Your task to perform on an android device: turn off location Image 0: 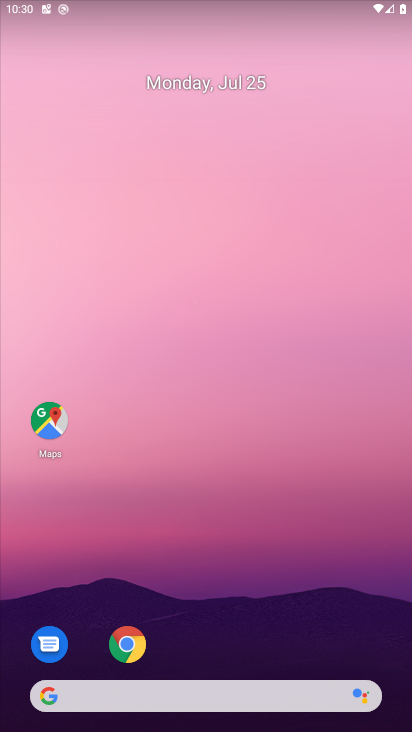
Step 0: drag from (259, 455) to (281, 170)
Your task to perform on an android device: turn off location Image 1: 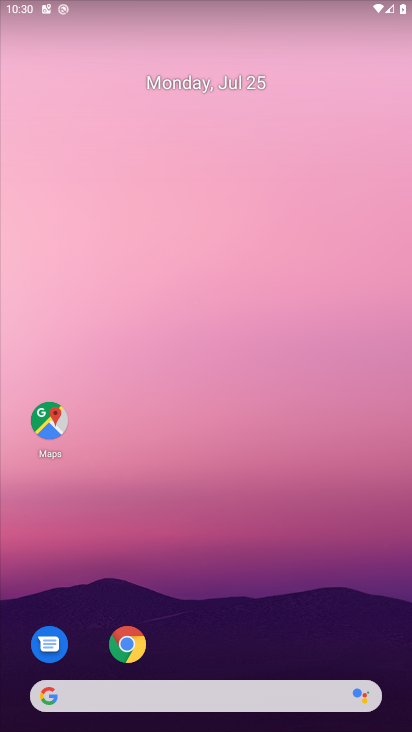
Step 1: drag from (295, 514) to (328, 1)
Your task to perform on an android device: turn off location Image 2: 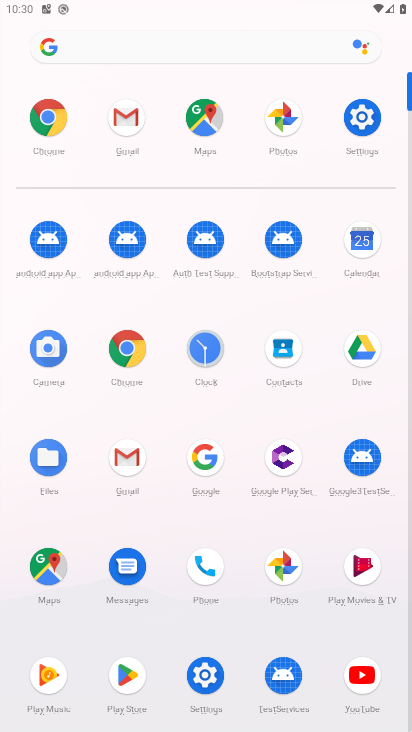
Step 2: click (358, 97)
Your task to perform on an android device: turn off location Image 3: 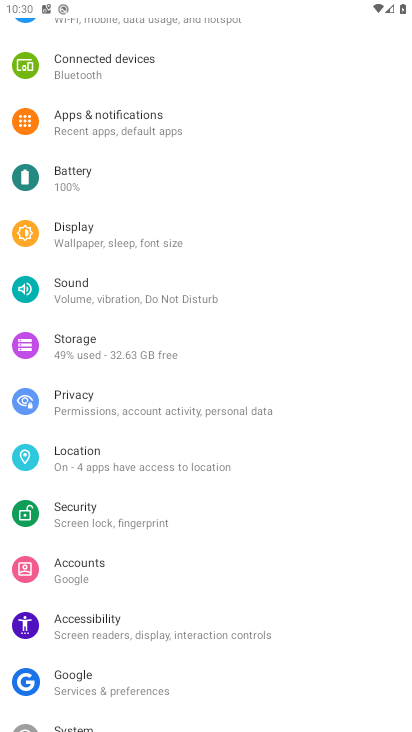
Step 3: click (167, 452)
Your task to perform on an android device: turn off location Image 4: 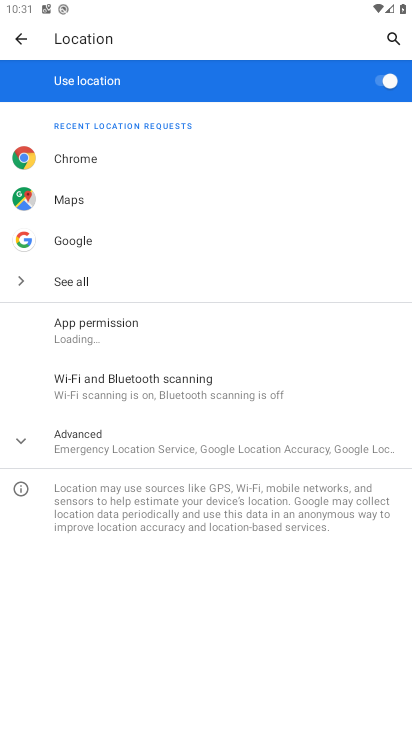
Step 4: click (169, 436)
Your task to perform on an android device: turn off location Image 5: 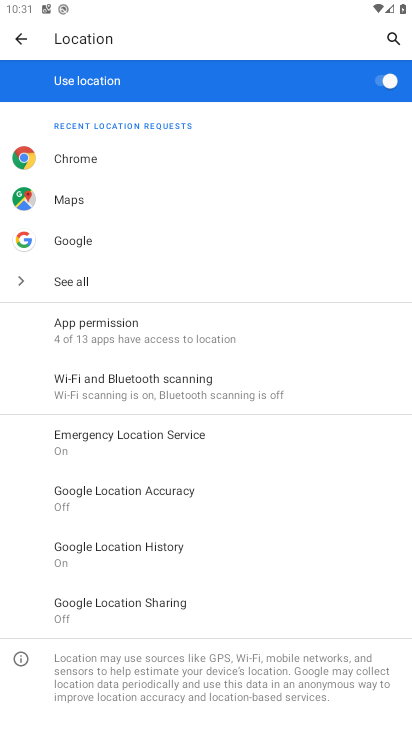
Step 5: task complete